Your task to perform on an android device: check the backup settings in the google photos Image 0: 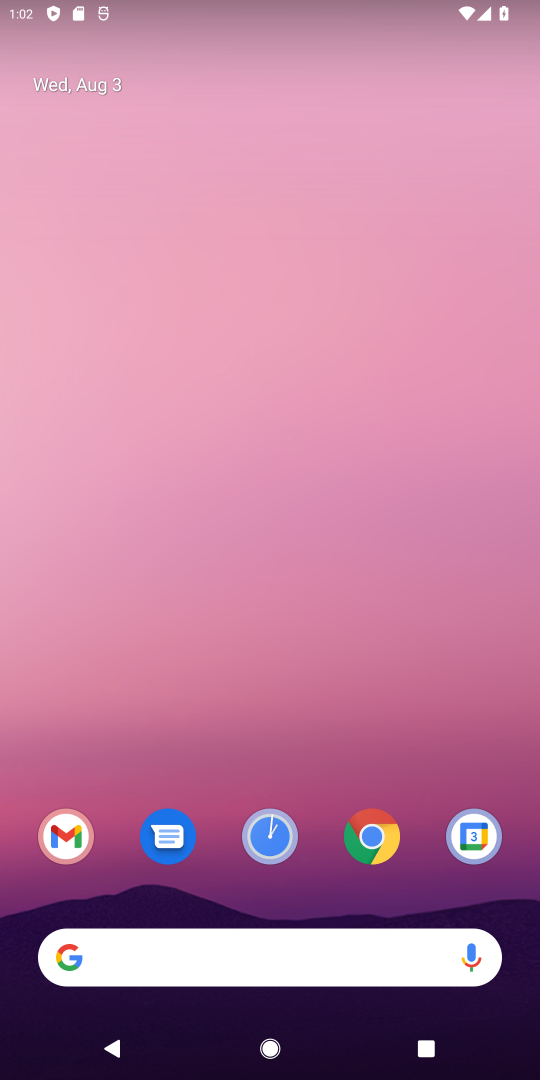
Step 0: drag from (203, 906) to (293, 40)
Your task to perform on an android device: check the backup settings in the google photos Image 1: 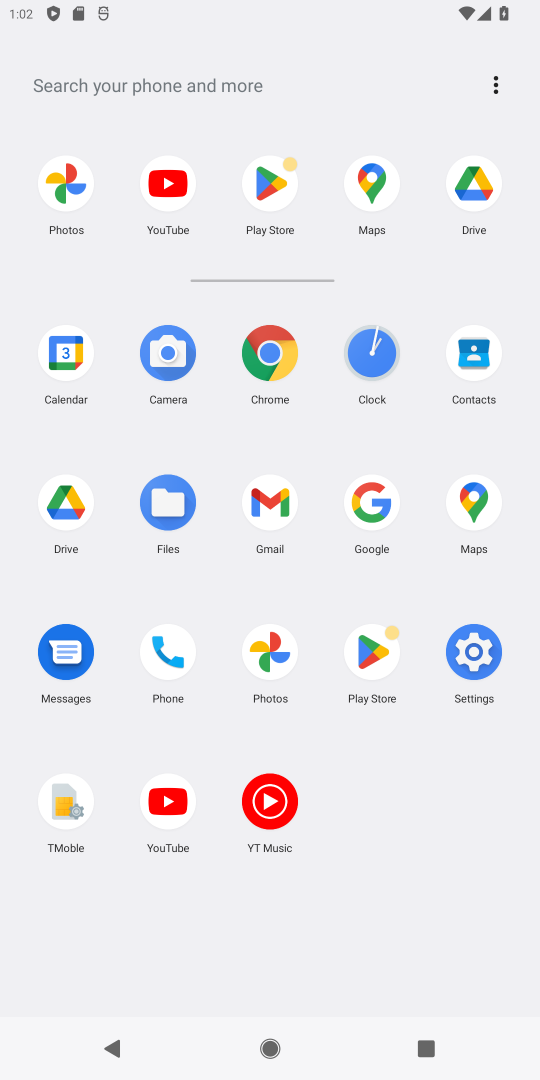
Step 1: click (266, 655)
Your task to perform on an android device: check the backup settings in the google photos Image 2: 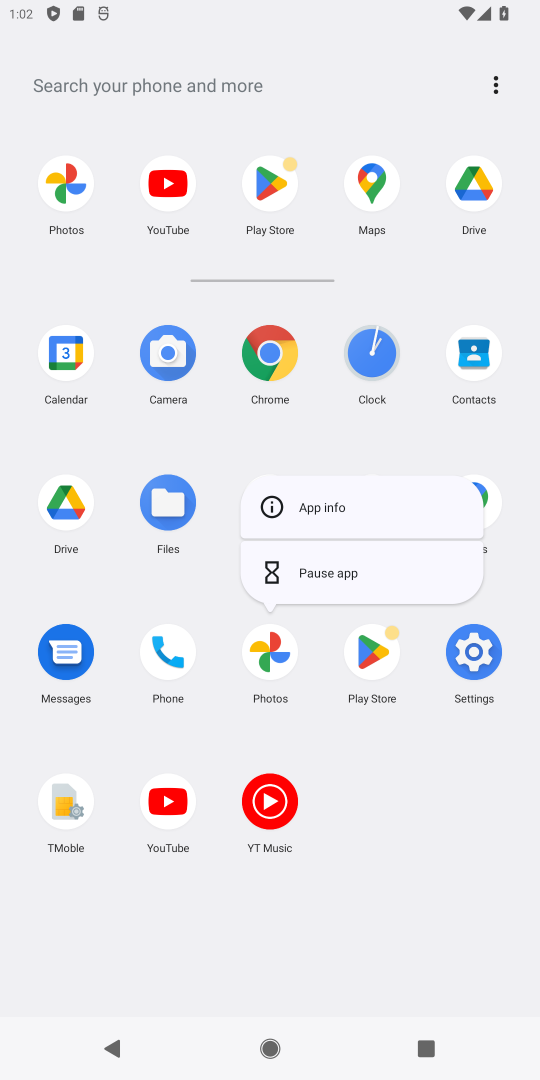
Step 2: click (335, 493)
Your task to perform on an android device: check the backup settings in the google photos Image 3: 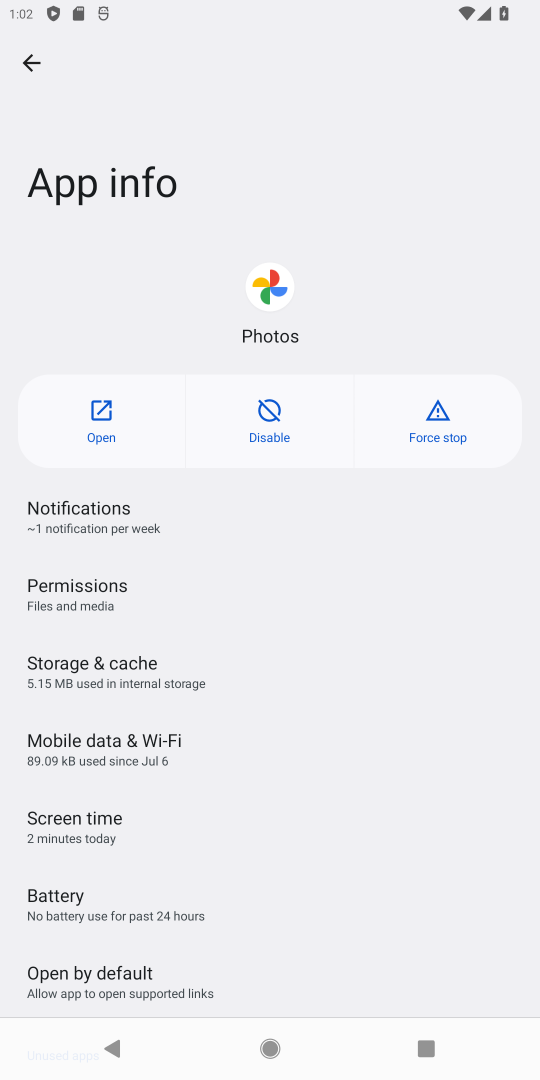
Step 3: click (88, 423)
Your task to perform on an android device: check the backup settings in the google photos Image 4: 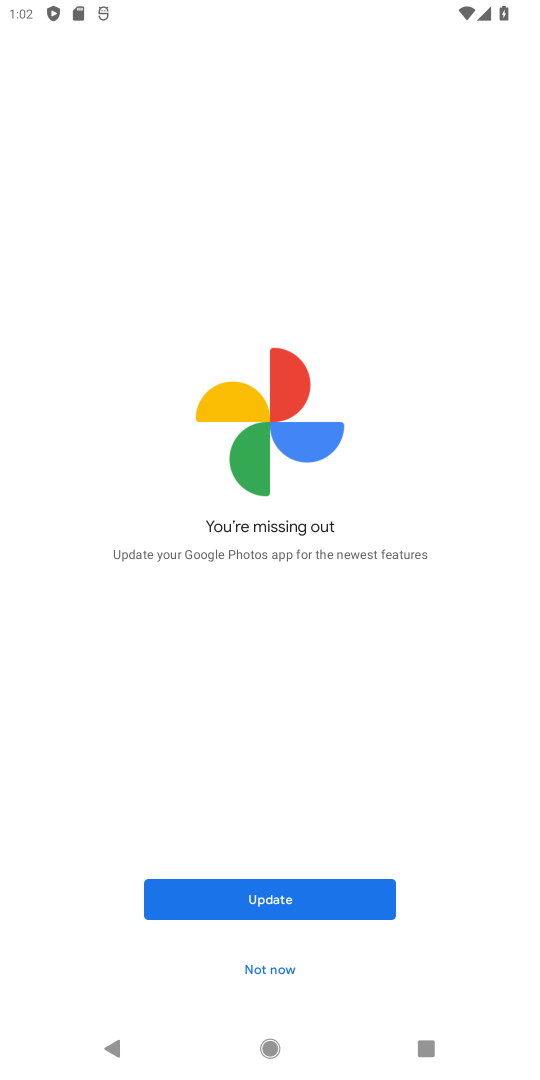
Step 4: click (263, 964)
Your task to perform on an android device: check the backup settings in the google photos Image 5: 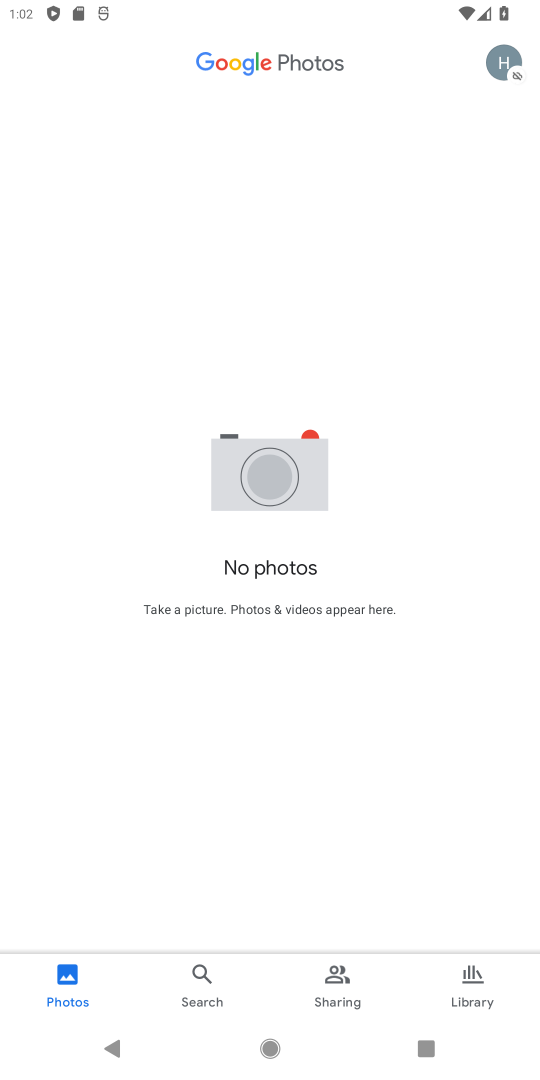
Step 5: click (503, 69)
Your task to perform on an android device: check the backup settings in the google photos Image 6: 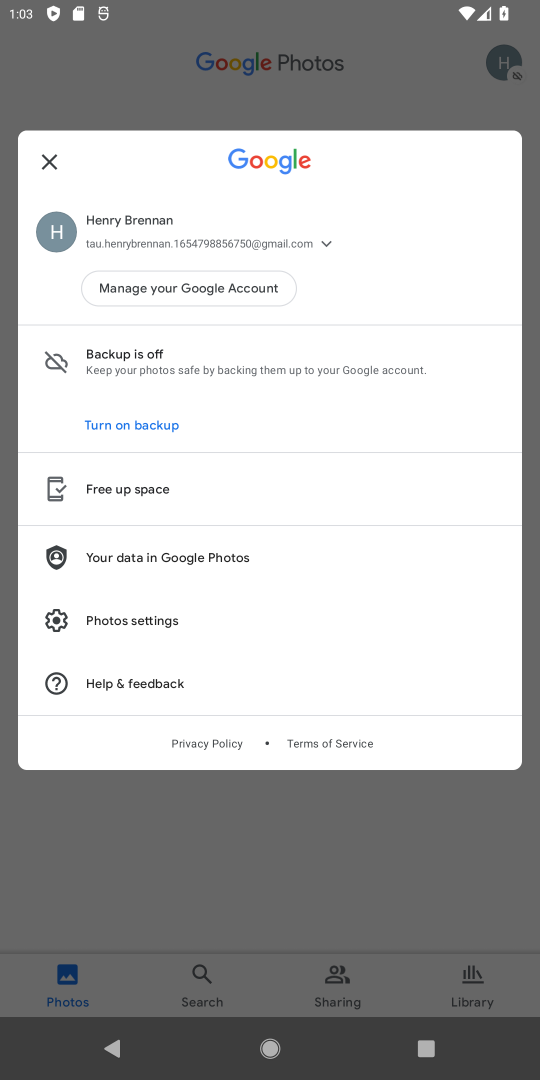
Step 6: drag from (230, 781) to (294, 119)
Your task to perform on an android device: check the backup settings in the google photos Image 7: 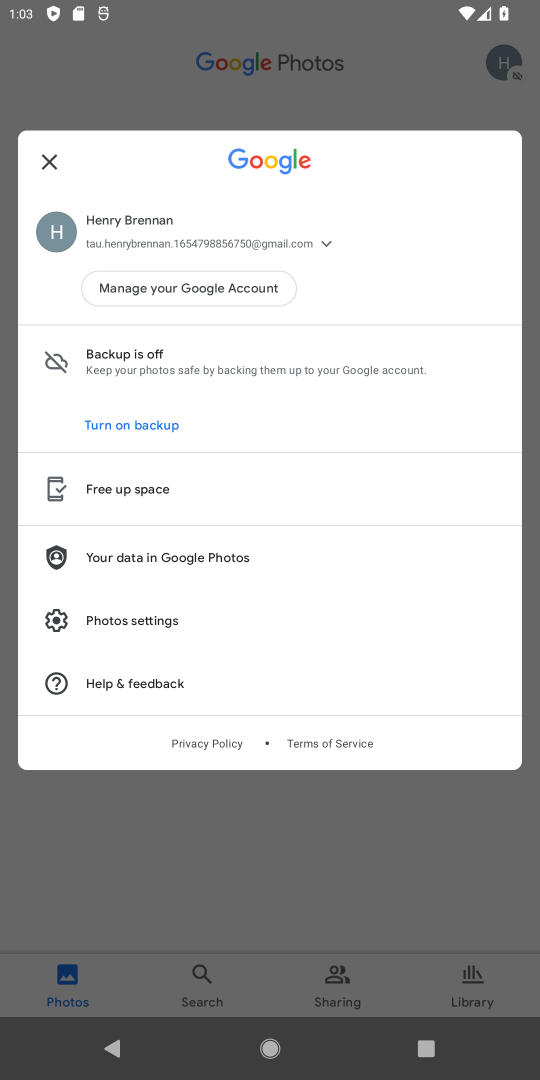
Step 7: click (106, 623)
Your task to perform on an android device: check the backup settings in the google photos Image 8: 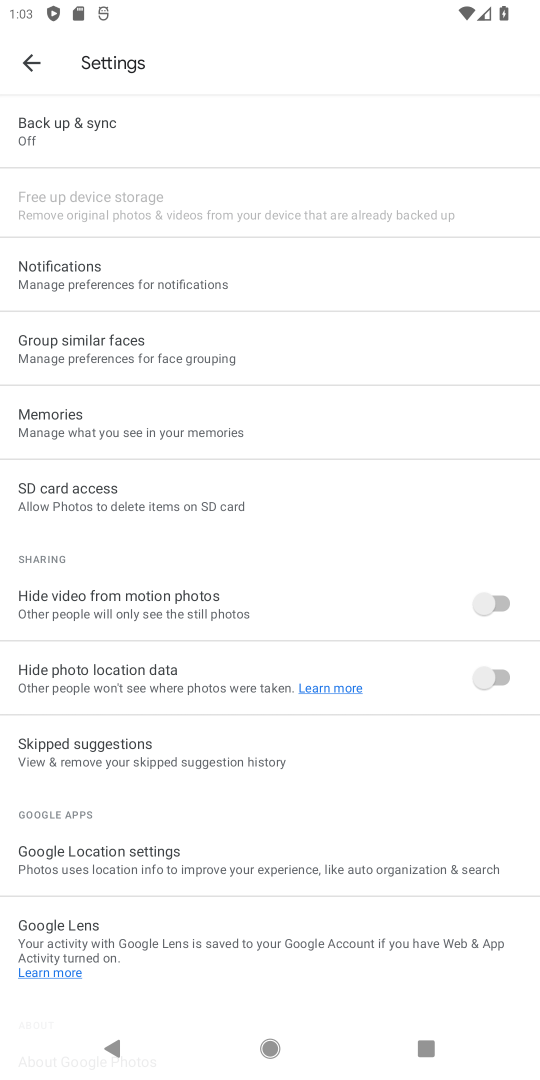
Step 8: click (330, 167)
Your task to perform on an android device: check the backup settings in the google photos Image 9: 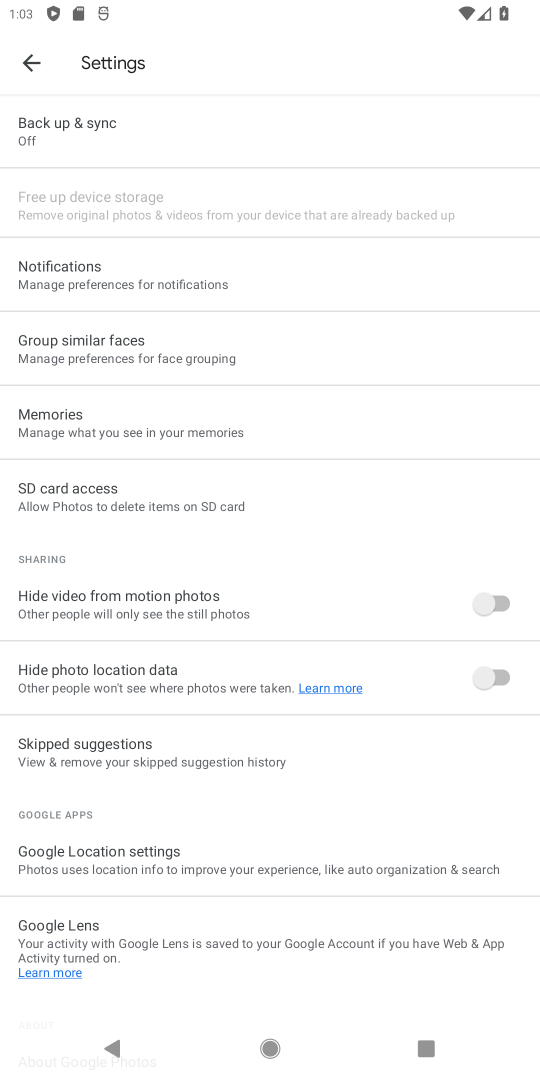
Step 9: drag from (256, 345) to (235, 1070)
Your task to perform on an android device: check the backup settings in the google photos Image 10: 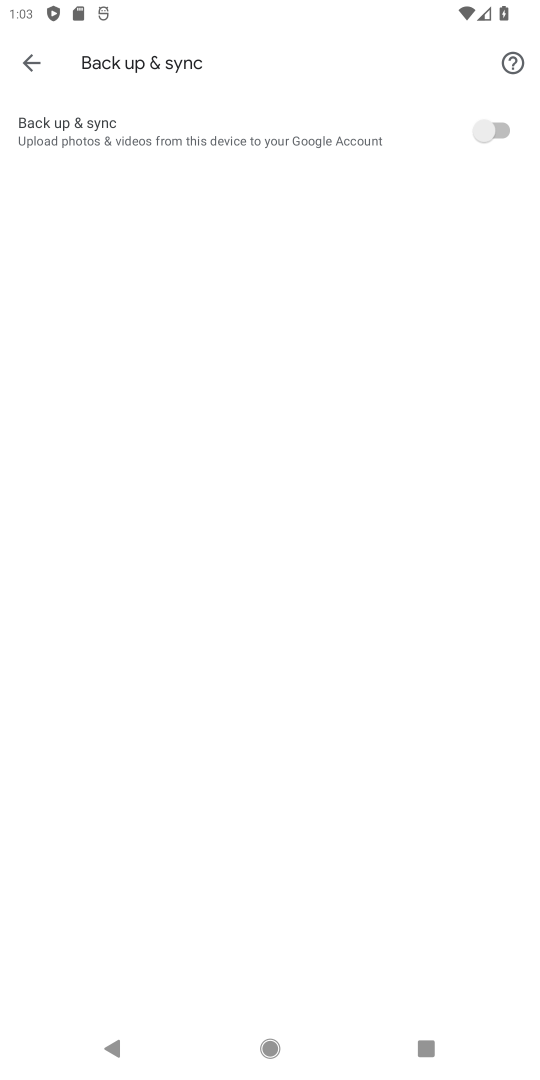
Step 10: drag from (242, 867) to (248, 427)
Your task to perform on an android device: check the backup settings in the google photos Image 11: 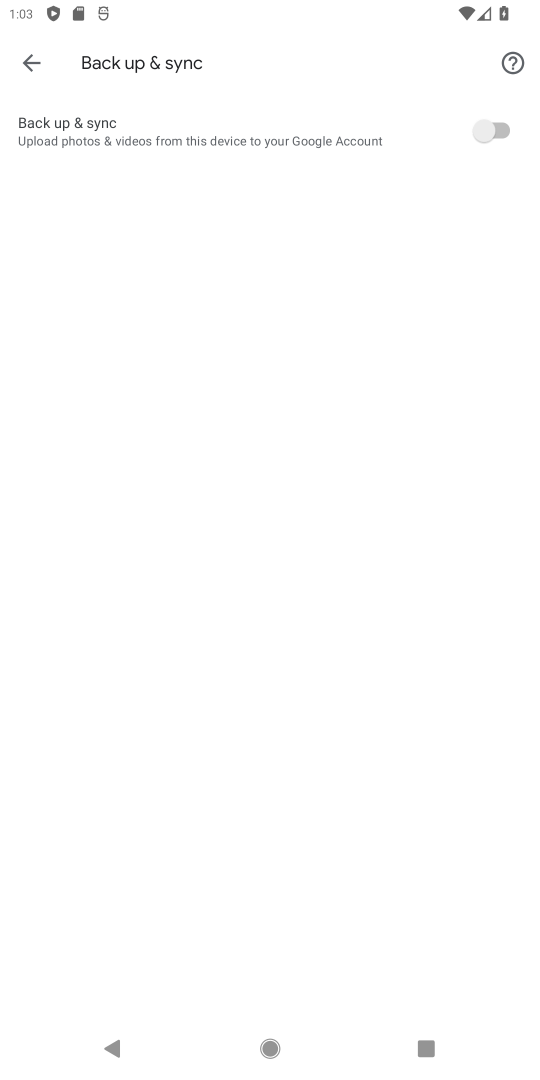
Step 11: drag from (257, 502) to (314, 969)
Your task to perform on an android device: check the backup settings in the google photos Image 12: 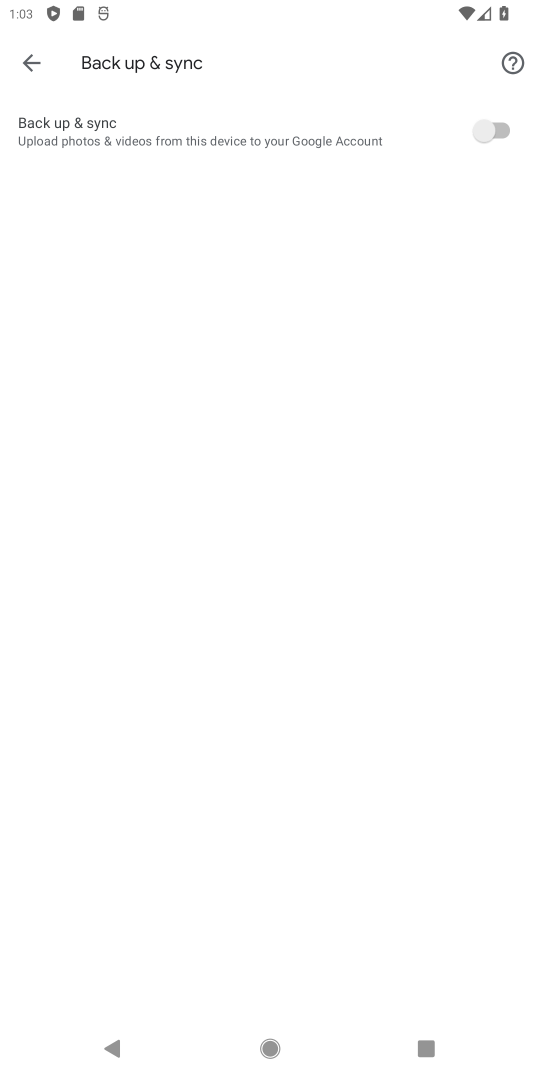
Step 12: drag from (297, 331) to (352, 919)
Your task to perform on an android device: check the backup settings in the google photos Image 13: 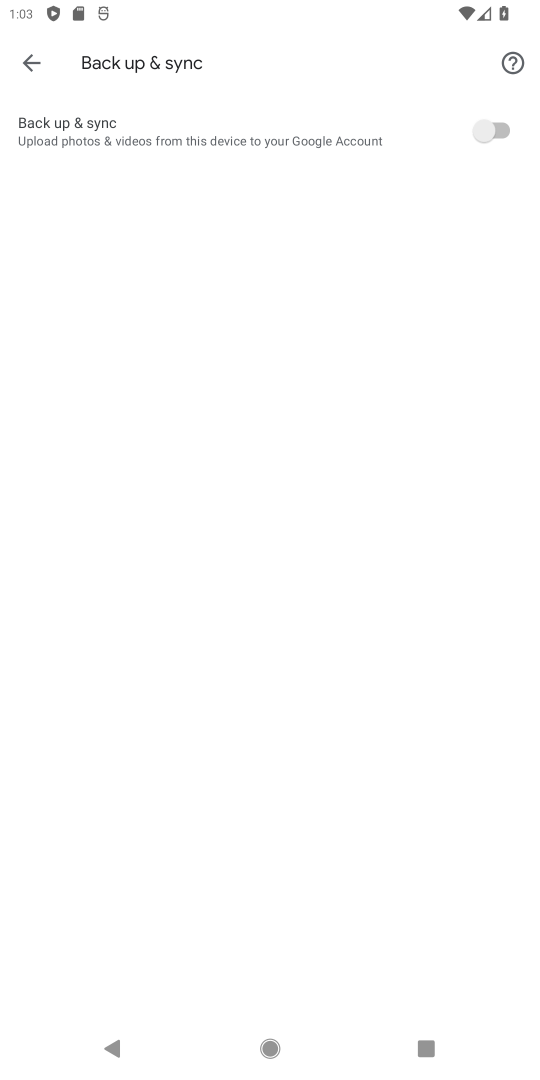
Step 13: drag from (229, 374) to (281, 914)
Your task to perform on an android device: check the backup settings in the google photos Image 14: 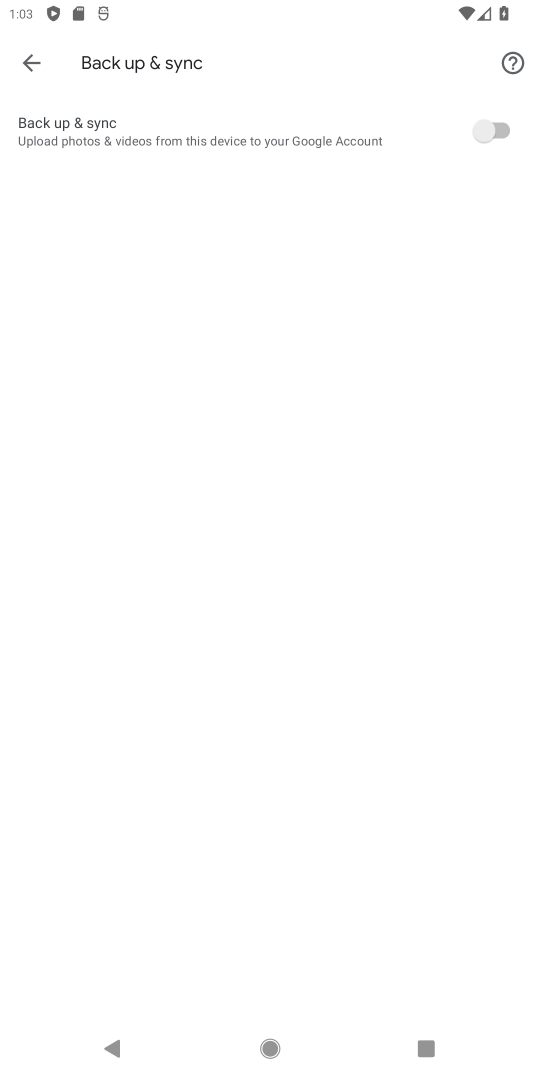
Step 14: drag from (219, 540) to (283, 889)
Your task to perform on an android device: check the backup settings in the google photos Image 15: 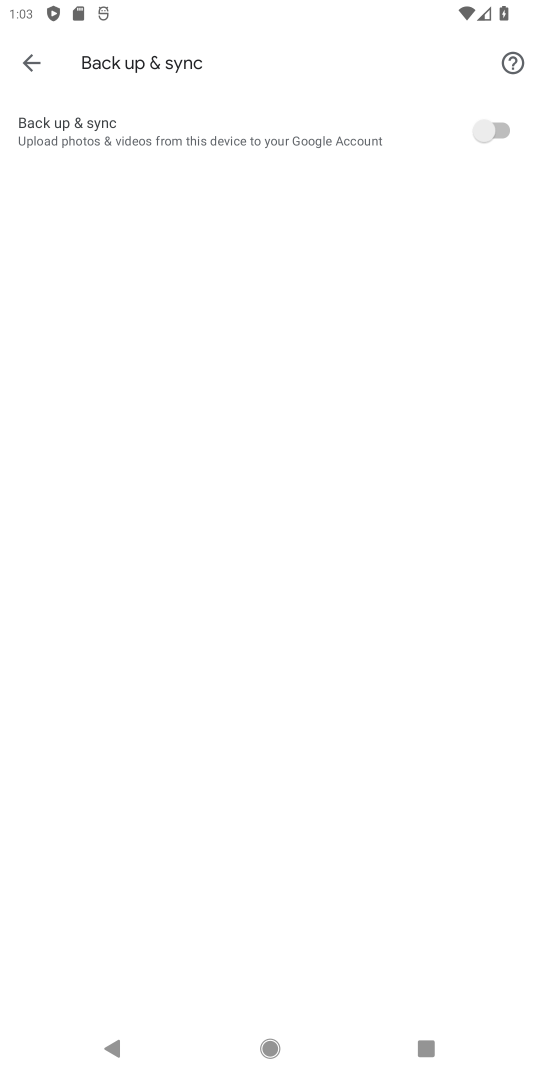
Step 15: drag from (214, 262) to (264, 776)
Your task to perform on an android device: check the backup settings in the google photos Image 16: 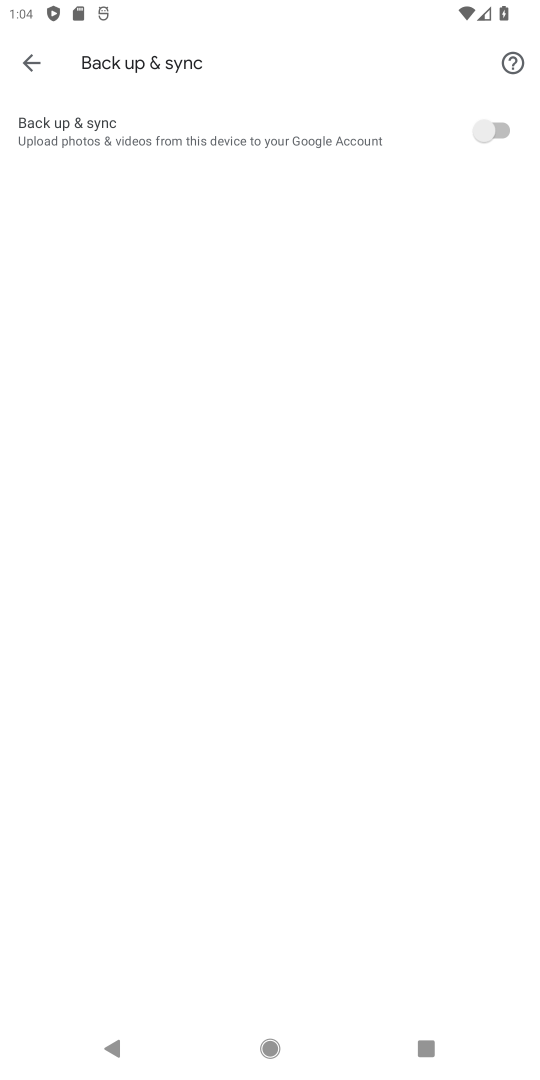
Step 16: drag from (256, 505) to (292, 944)
Your task to perform on an android device: check the backup settings in the google photos Image 17: 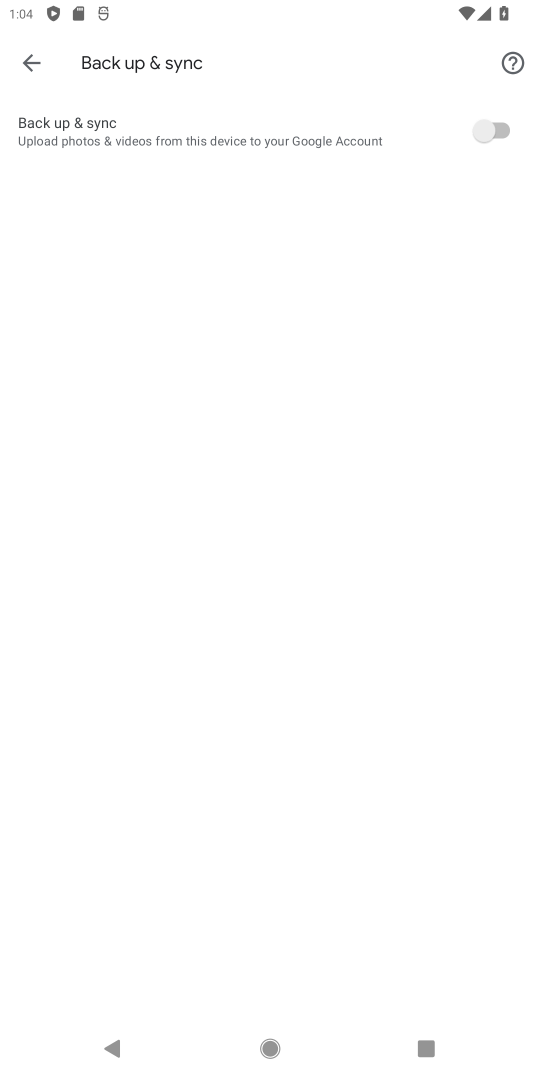
Step 17: drag from (160, 684) to (282, 217)
Your task to perform on an android device: check the backup settings in the google photos Image 18: 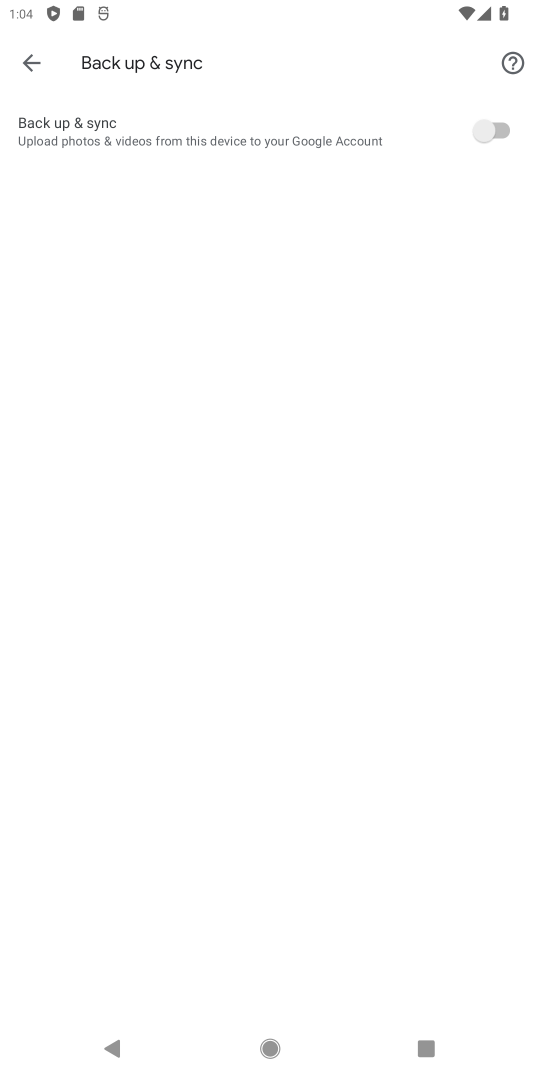
Step 18: drag from (242, 349) to (325, 713)
Your task to perform on an android device: check the backup settings in the google photos Image 19: 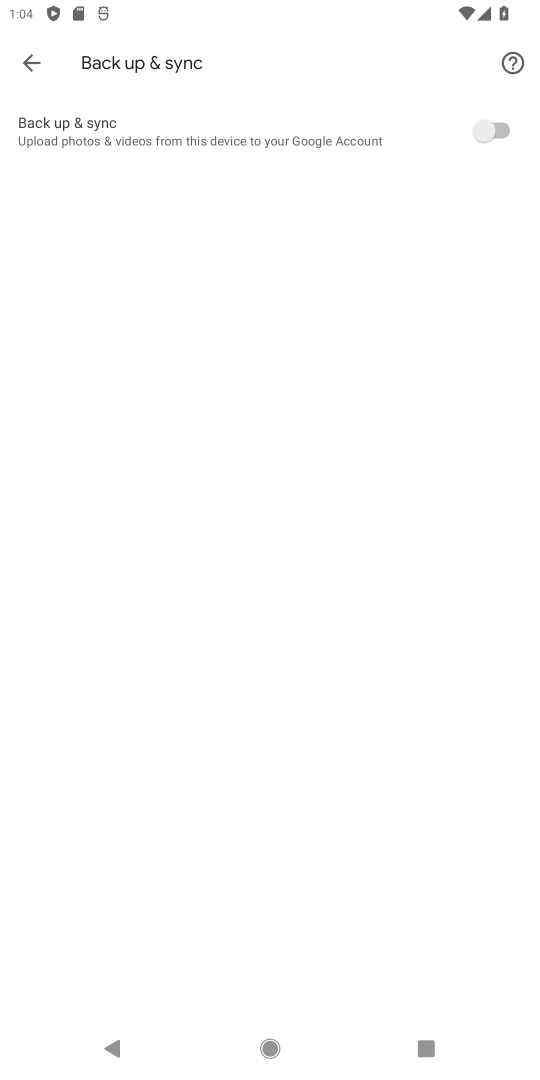
Step 19: click (38, 62)
Your task to perform on an android device: check the backup settings in the google photos Image 20: 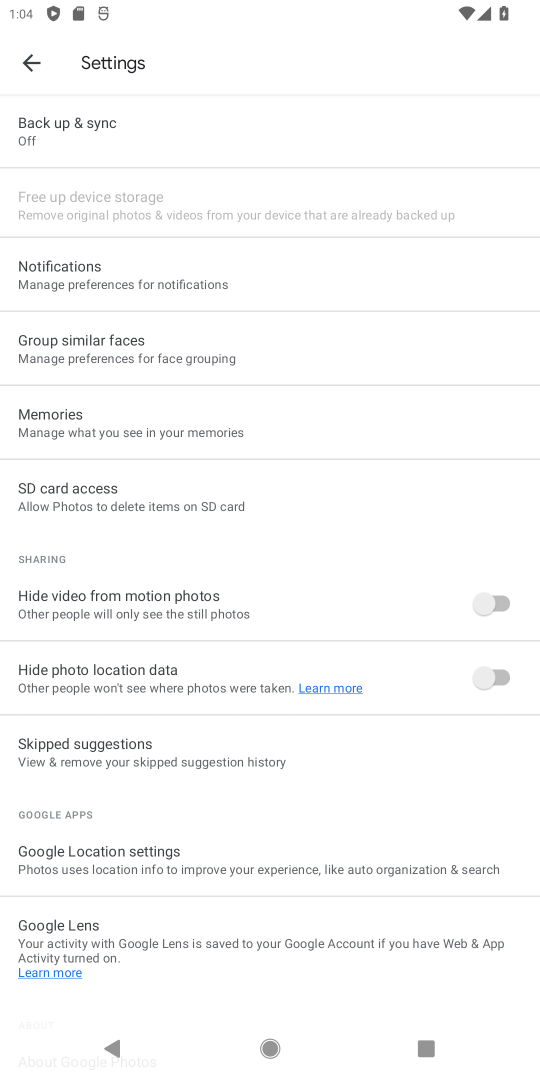
Step 20: drag from (212, 344) to (247, 867)
Your task to perform on an android device: check the backup settings in the google photos Image 21: 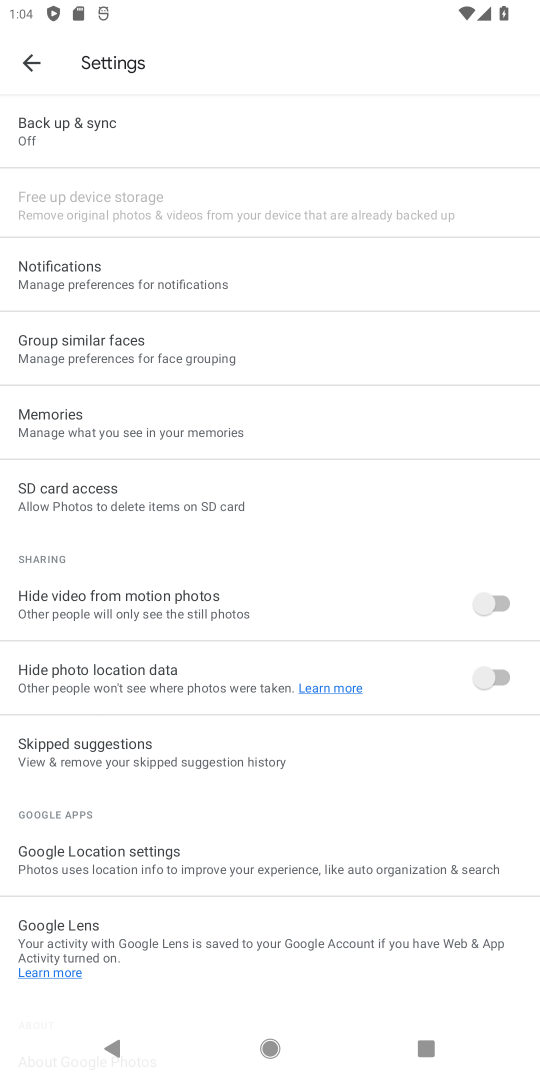
Step 21: drag from (266, 501) to (314, 614)
Your task to perform on an android device: check the backup settings in the google photos Image 22: 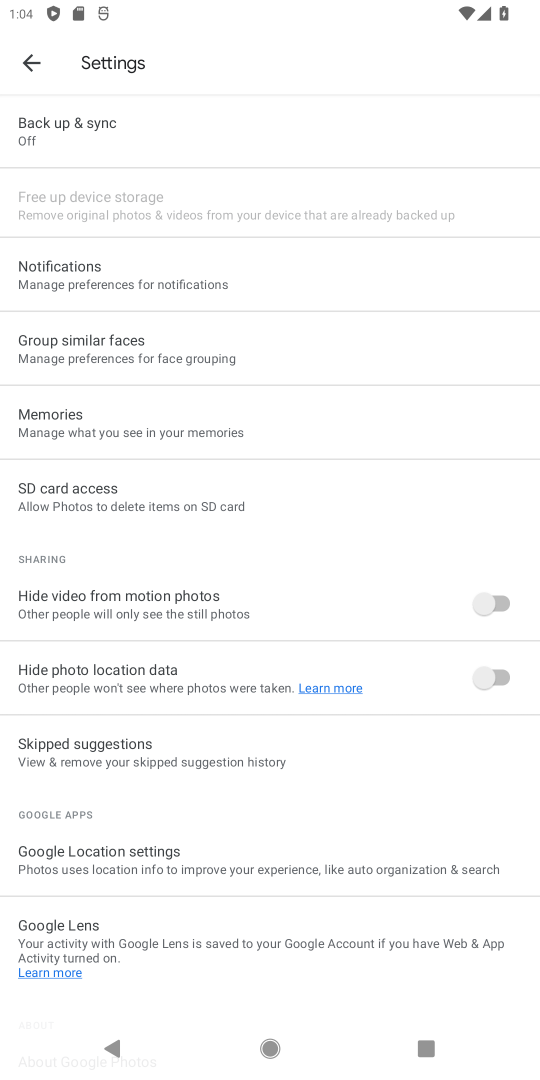
Step 22: click (117, 157)
Your task to perform on an android device: check the backup settings in the google photos Image 23: 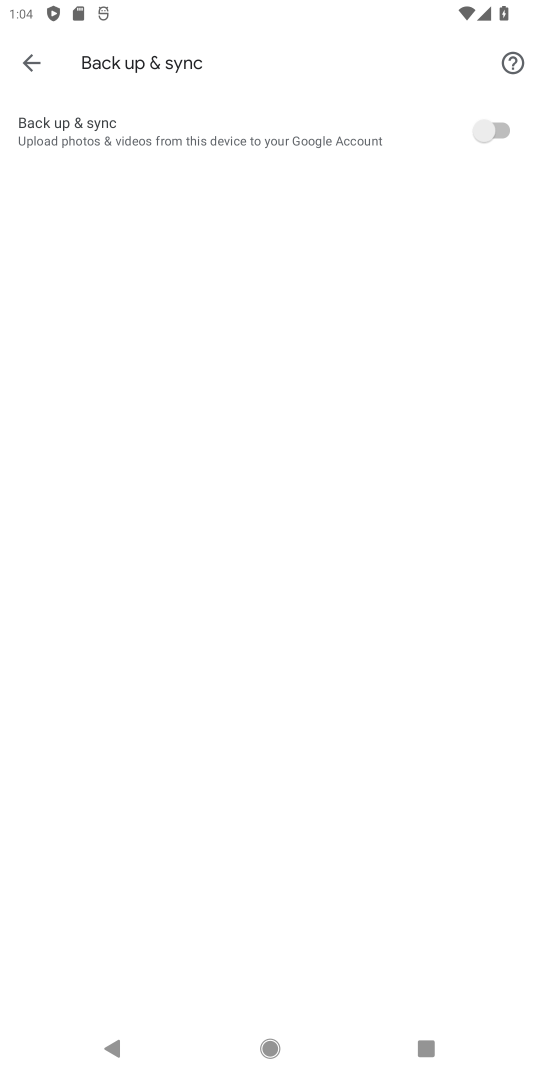
Step 23: task complete